Your task to perform on an android device: Search for "razer blade" on newegg, select the first entry, add it to the cart, then select checkout. Image 0: 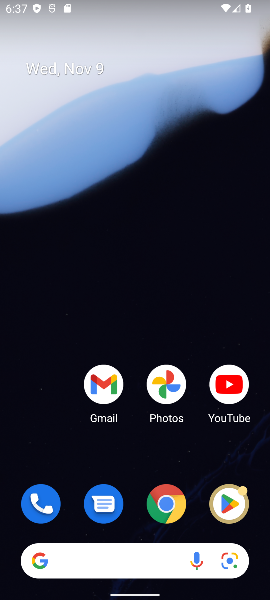
Step 0: click (157, 513)
Your task to perform on an android device: Search for "razer blade" on newegg, select the first entry, add it to the cart, then select checkout. Image 1: 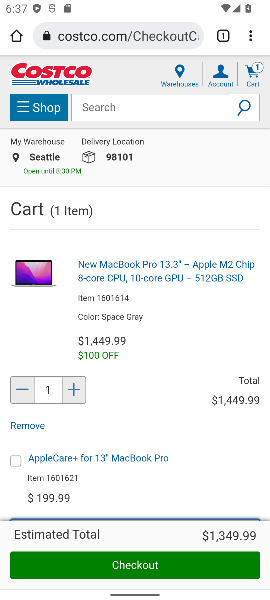
Step 1: click (138, 37)
Your task to perform on an android device: Search for "razer blade" on newegg, select the first entry, add it to the cart, then select checkout. Image 2: 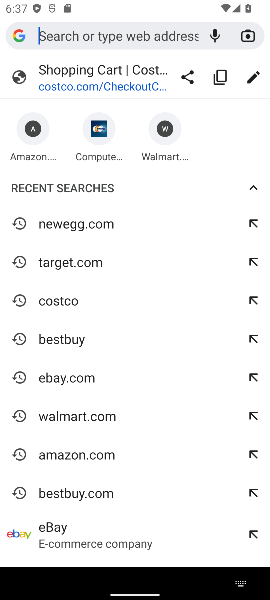
Step 2: type "newegg"
Your task to perform on an android device: Search for "razer blade" on newegg, select the first entry, add it to the cart, then select checkout. Image 3: 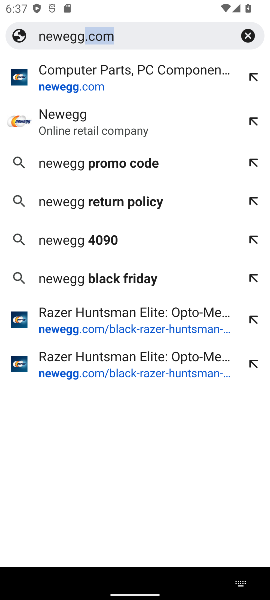
Step 3: click (99, 79)
Your task to perform on an android device: Search for "razer blade" on newegg, select the first entry, add it to the cart, then select checkout. Image 4: 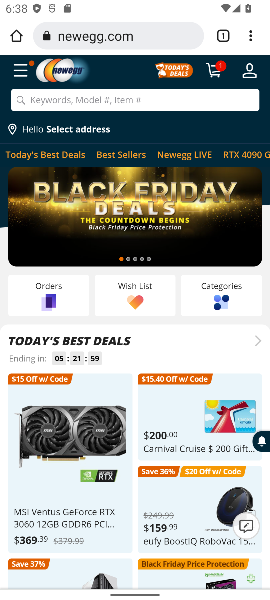
Step 4: click (138, 94)
Your task to perform on an android device: Search for "razer blade" on newegg, select the first entry, add it to the cart, then select checkout. Image 5: 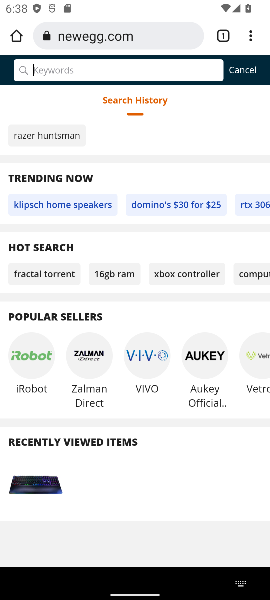
Step 5: type "razer blade"
Your task to perform on an android device: Search for "razer blade" on newegg, select the first entry, add it to the cart, then select checkout. Image 6: 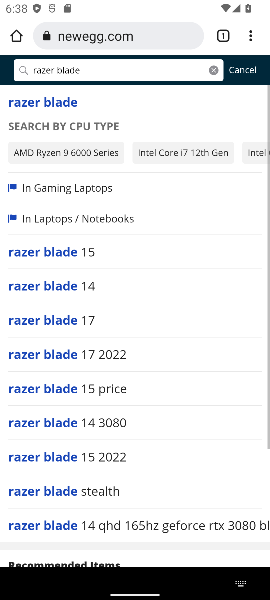
Step 6: click (108, 99)
Your task to perform on an android device: Search for "razer blade" on newegg, select the first entry, add it to the cart, then select checkout. Image 7: 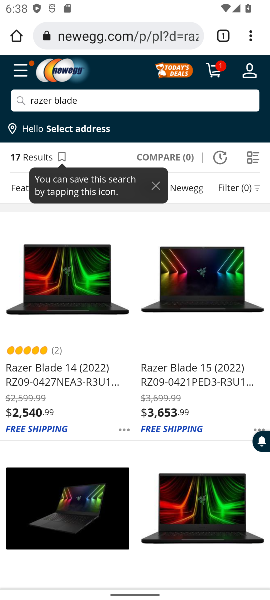
Step 7: click (74, 278)
Your task to perform on an android device: Search for "razer blade" on newegg, select the first entry, add it to the cart, then select checkout. Image 8: 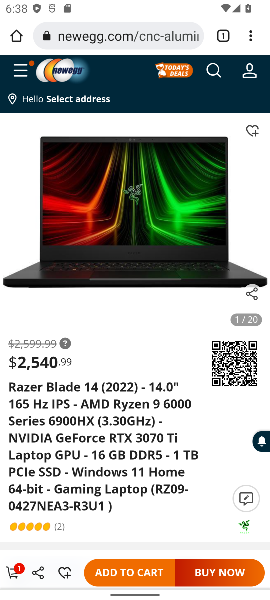
Step 8: click (162, 568)
Your task to perform on an android device: Search for "razer blade" on newegg, select the first entry, add it to the cart, then select checkout. Image 9: 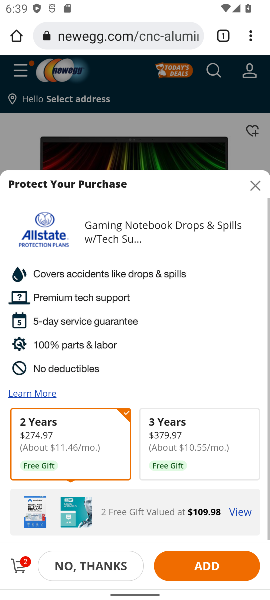
Step 9: click (107, 562)
Your task to perform on an android device: Search for "razer blade" on newegg, select the first entry, add it to the cart, then select checkout. Image 10: 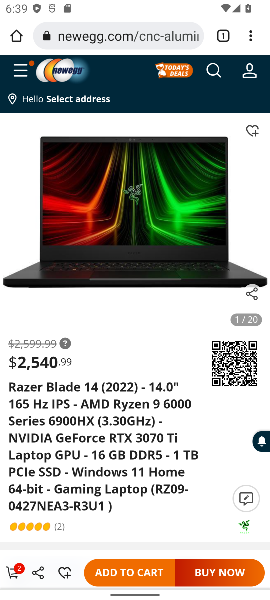
Step 10: click (24, 68)
Your task to perform on an android device: Search for "razer blade" on newegg, select the first entry, add it to the cart, then select checkout. Image 11: 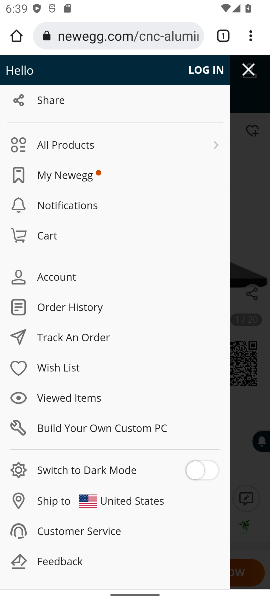
Step 11: click (52, 231)
Your task to perform on an android device: Search for "razer blade" on newegg, select the first entry, add it to the cart, then select checkout. Image 12: 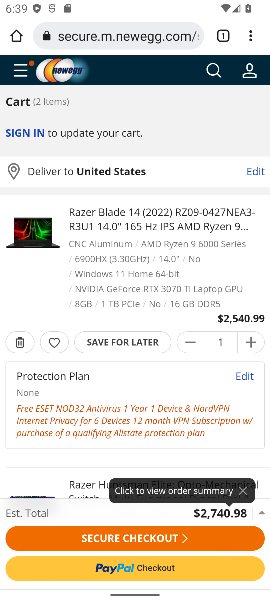
Step 12: click (200, 542)
Your task to perform on an android device: Search for "razer blade" on newegg, select the first entry, add it to the cart, then select checkout. Image 13: 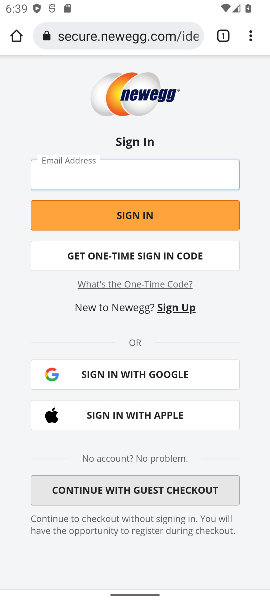
Step 13: task complete